Your task to perform on an android device: Is it going to rain today? Image 0: 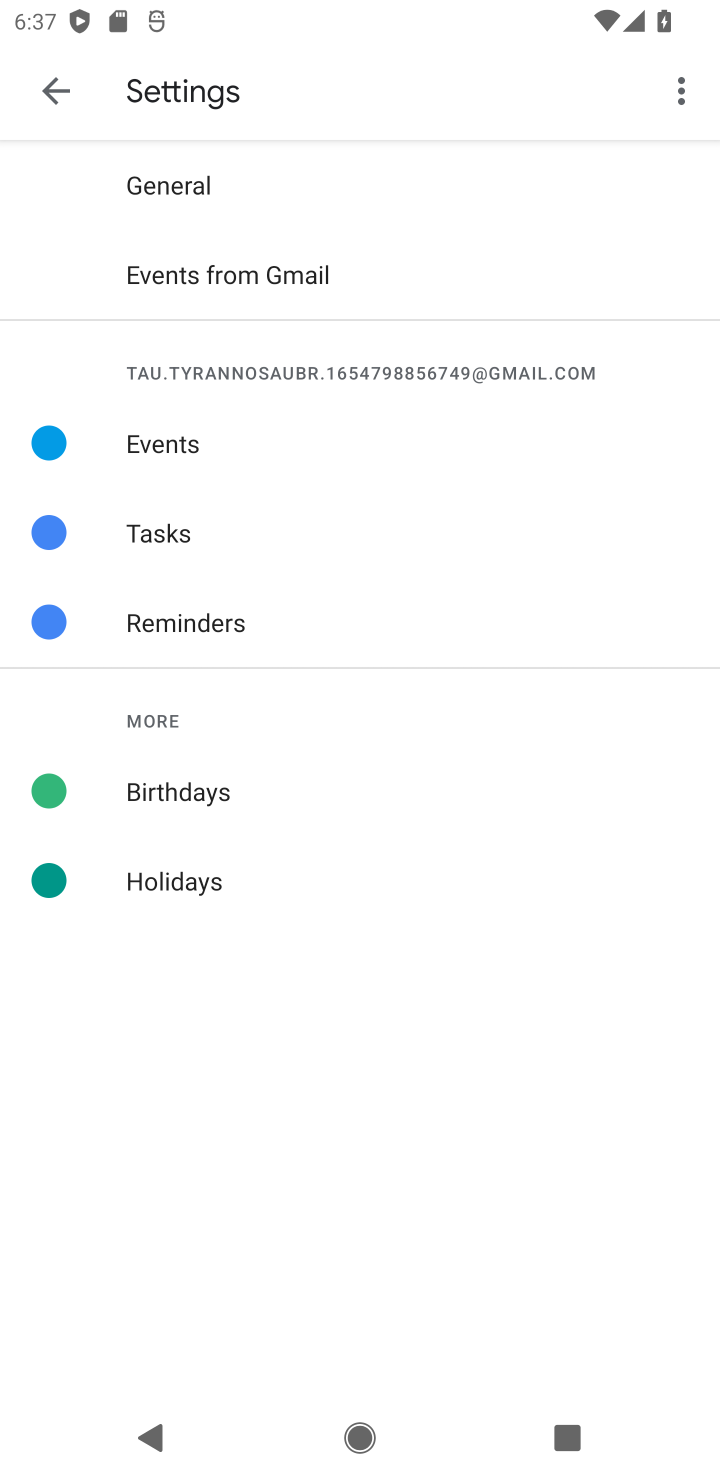
Step 0: press home button
Your task to perform on an android device: Is it going to rain today? Image 1: 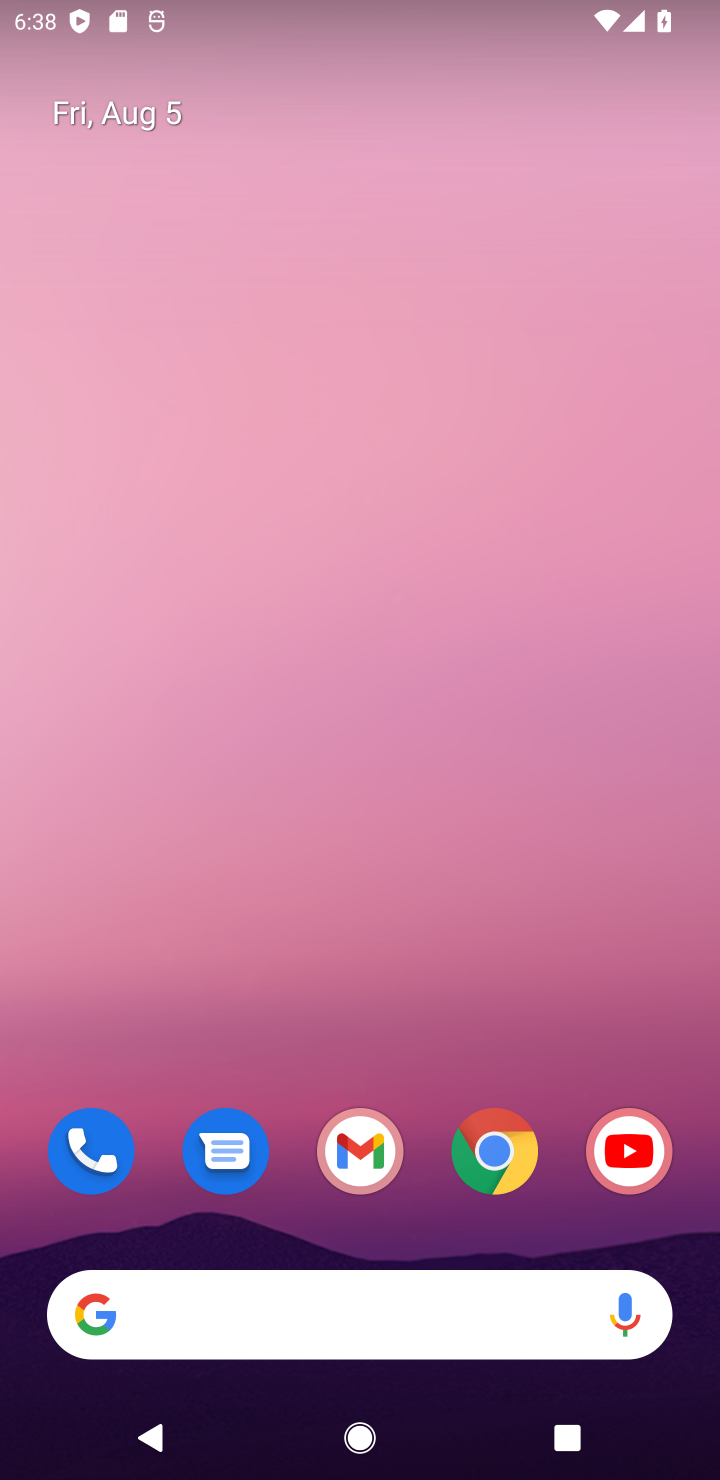
Step 1: click (466, 1321)
Your task to perform on an android device: Is it going to rain today? Image 2: 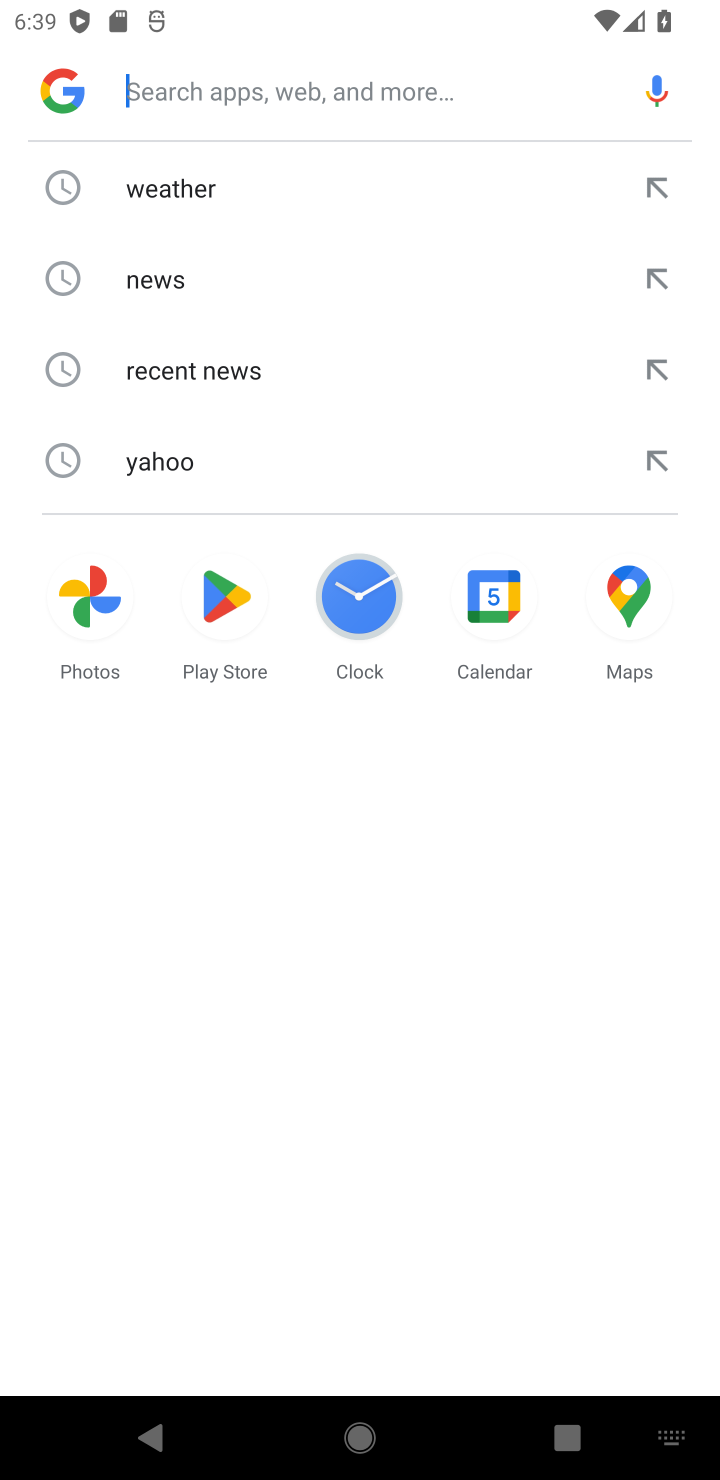
Step 2: click (284, 188)
Your task to perform on an android device: Is it going to rain today? Image 3: 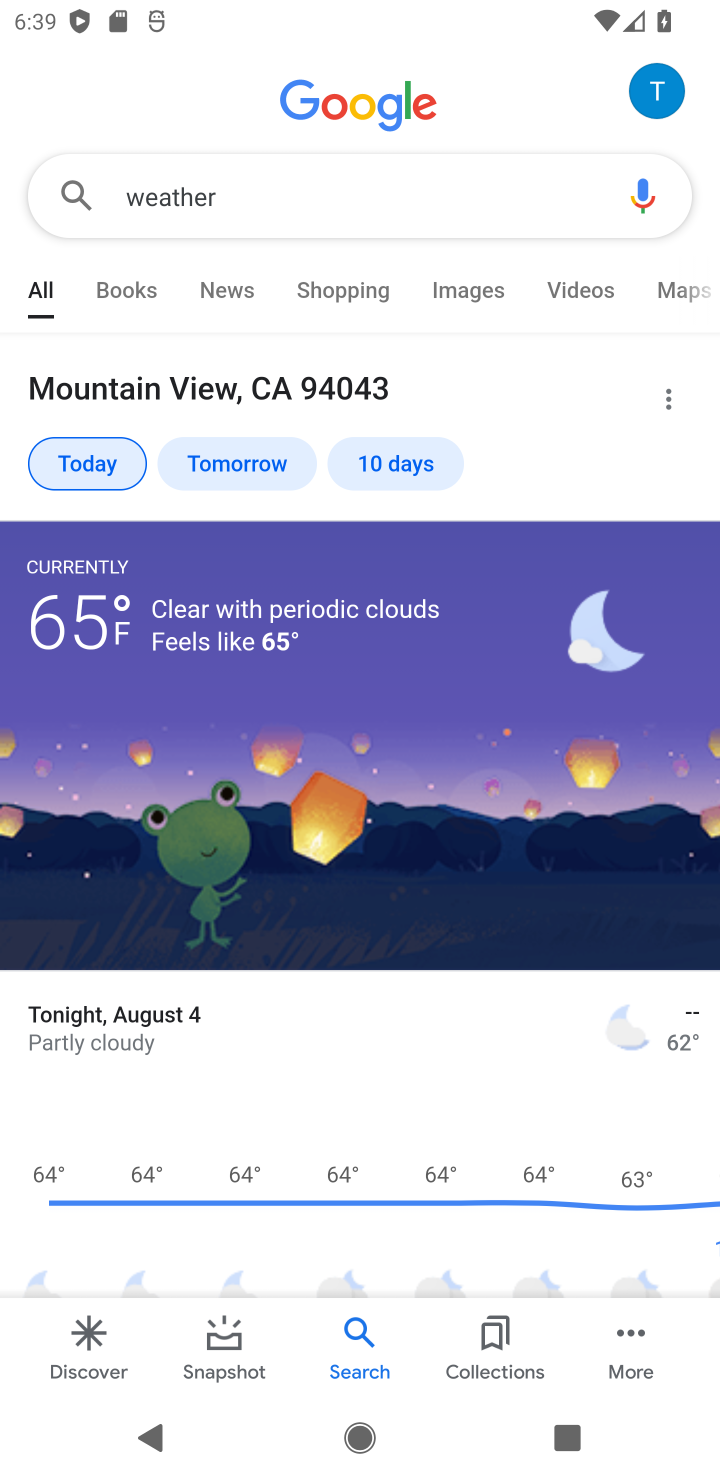
Step 3: task complete